Your task to perform on an android device: Open Google Chrome and click the shortcut for Amazon.com Image 0: 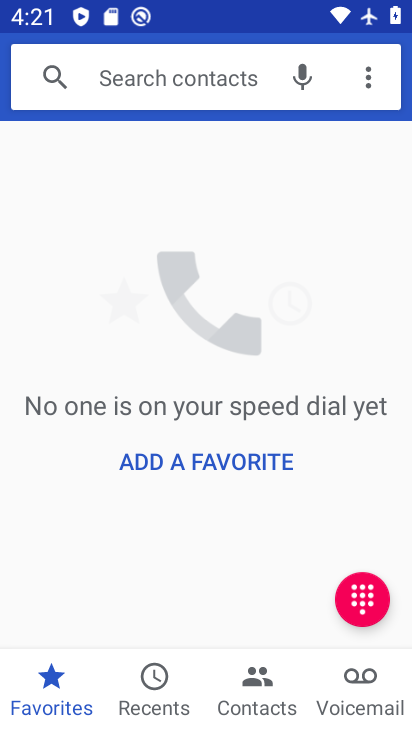
Step 0: press home button
Your task to perform on an android device: Open Google Chrome and click the shortcut for Amazon.com Image 1: 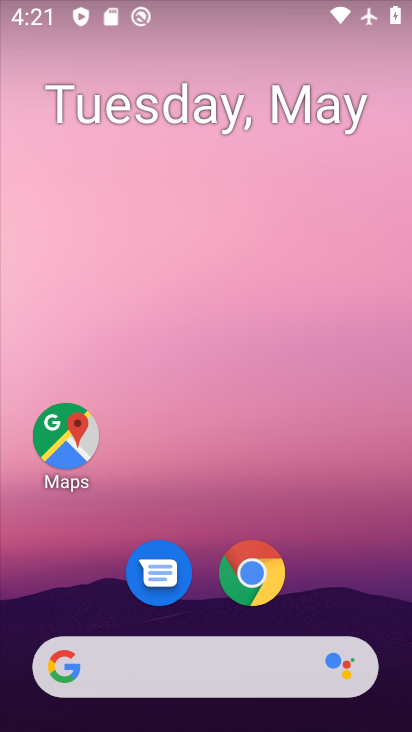
Step 1: click (260, 572)
Your task to perform on an android device: Open Google Chrome and click the shortcut for Amazon.com Image 2: 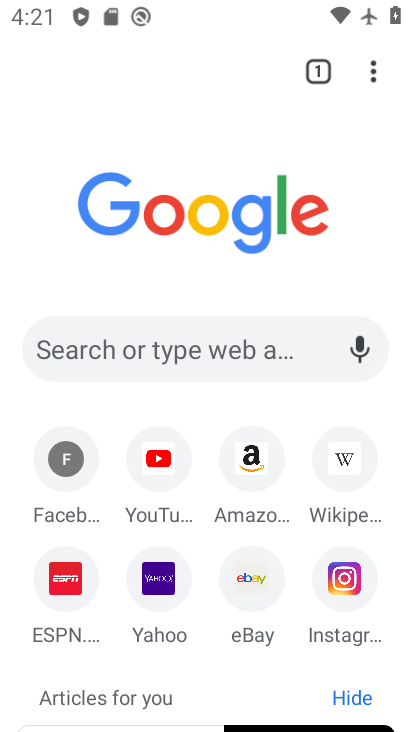
Step 2: click (242, 474)
Your task to perform on an android device: Open Google Chrome and click the shortcut for Amazon.com Image 3: 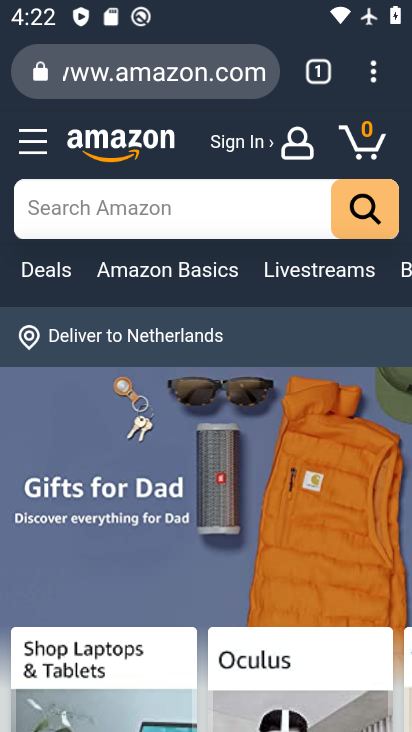
Step 3: task complete